Your task to perform on an android device: Open settings on Google Maps Image 0: 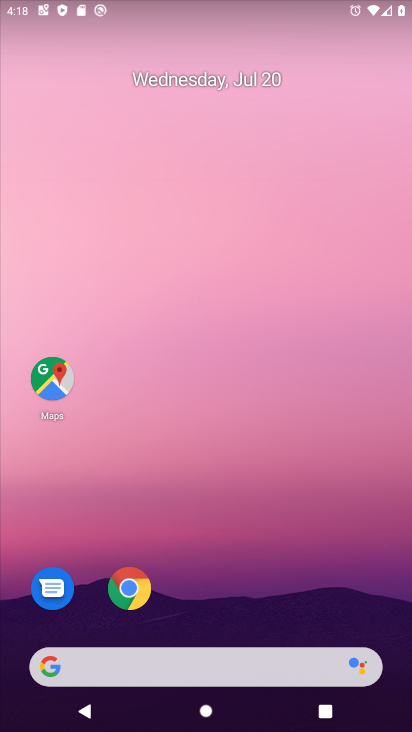
Step 0: drag from (330, 545) to (335, 9)
Your task to perform on an android device: Open settings on Google Maps Image 1: 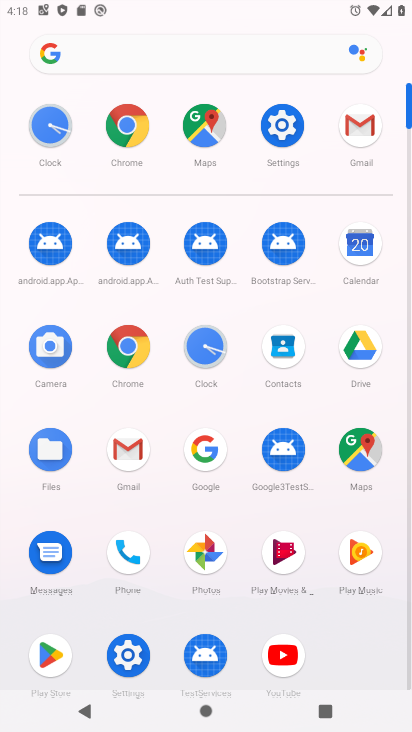
Step 1: click (206, 129)
Your task to perform on an android device: Open settings on Google Maps Image 2: 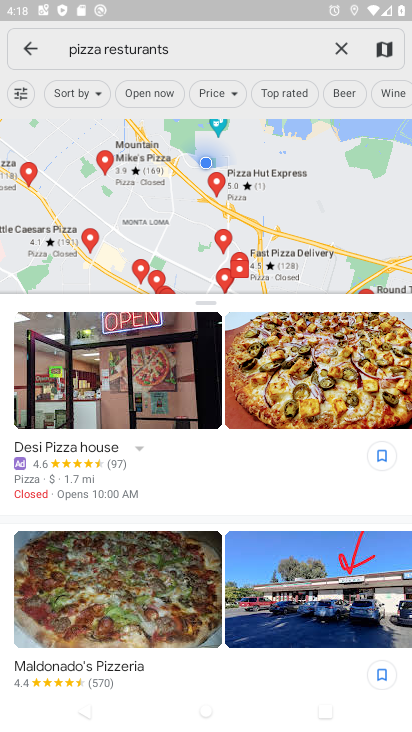
Step 2: click (33, 41)
Your task to perform on an android device: Open settings on Google Maps Image 3: 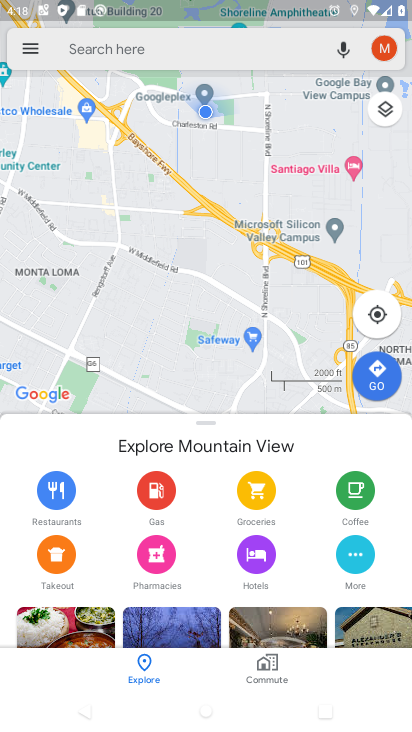
Step 3: click (31, 45)
Your task to perform on an android device: Open settings on Google Maps Image 4: 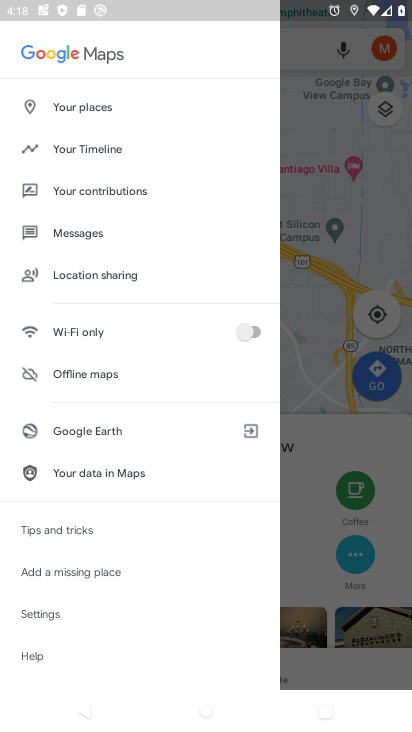
Step 4: click (48, 610)
Your task to perform on an android device: Open settings on Google Maps Image 5: 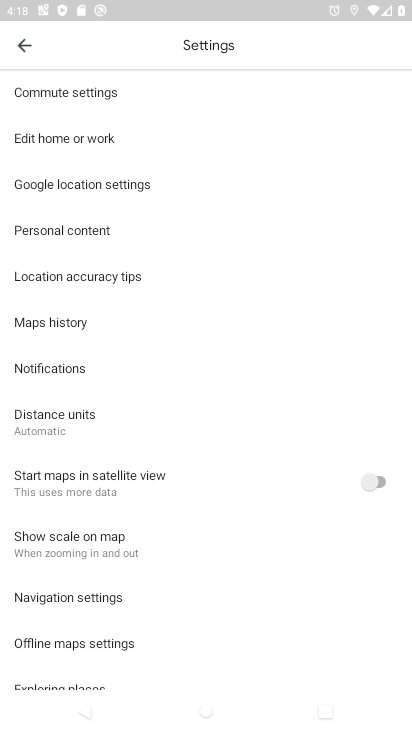
Step 5: task complete